Your task to perform on an android device: Open Google Chrome Image 0: 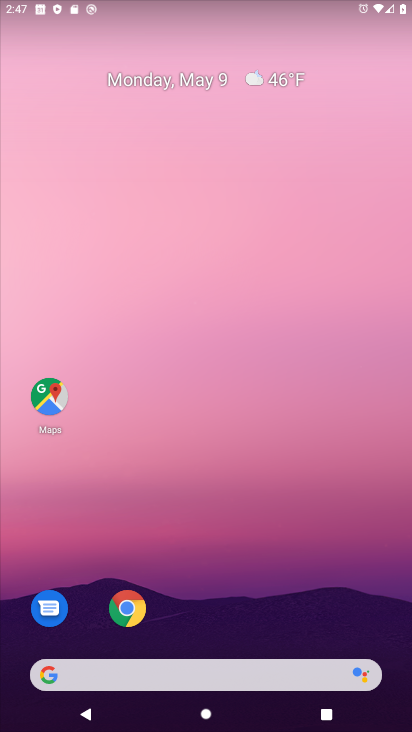
Step 0: click (133, 601)
Your task to perform on an android device: Open Google Chrome Image 1: 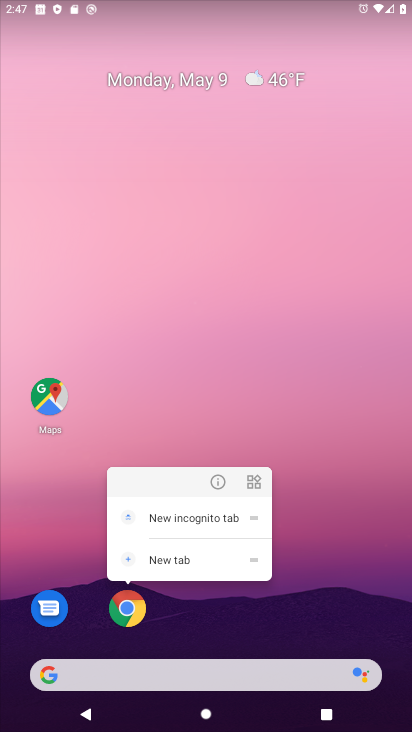
Step 1: click (123, 609)
Your task to perform on an android device: Open Google Chrome Image 2: 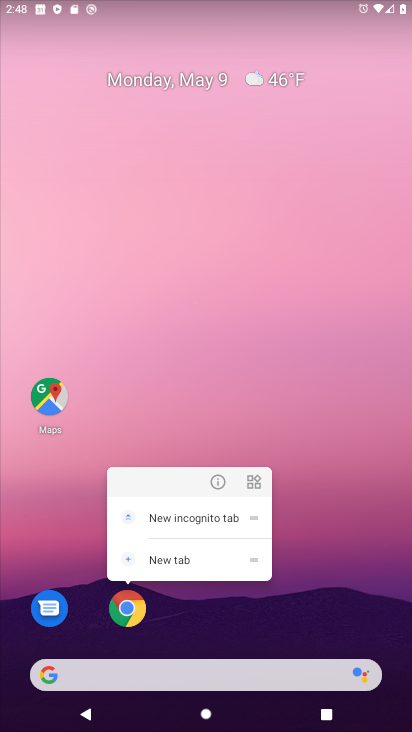
Step 2: click (122, 608)
Your task to perform on an android device: Open Google Chrome Image 3: 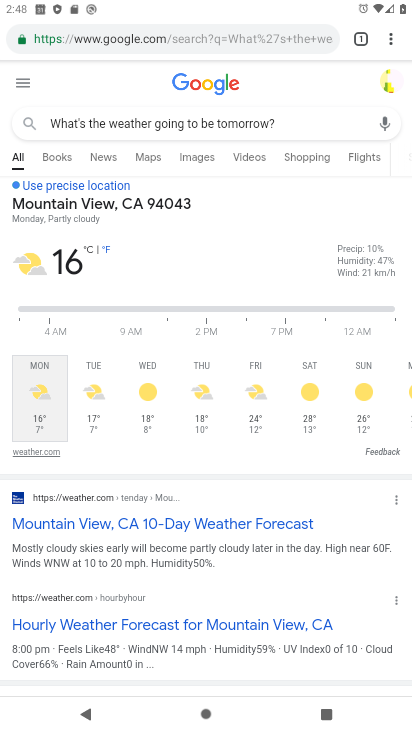
Step 3: task complete